Your task to perform on an android device: Open sound settings Image 0: 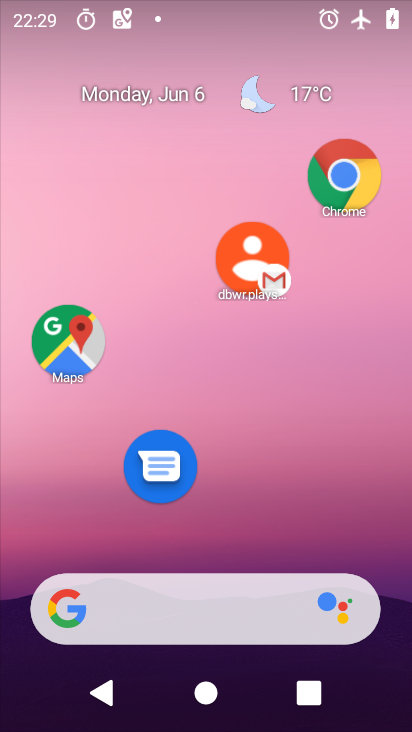
Step 0: drag from (218, 550) to (103, 111)
Your task to perform on an android device: Open sound settings Image 1: 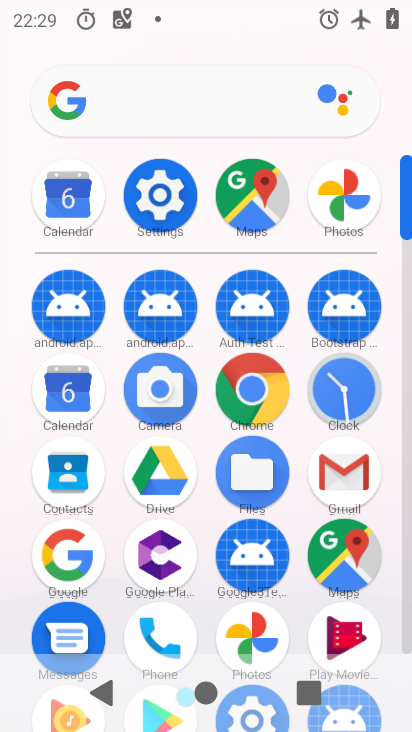
Step 1: click (170, 197)
Your task to perform on an android device: Open sound settings Image 2: 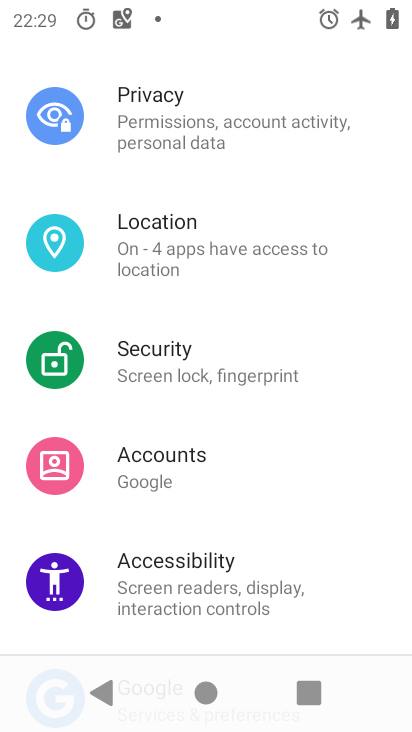
Step 2: drag from (162, 198) to (323, 638)
Your task to perform on an android device: Open sound settings Image 3: 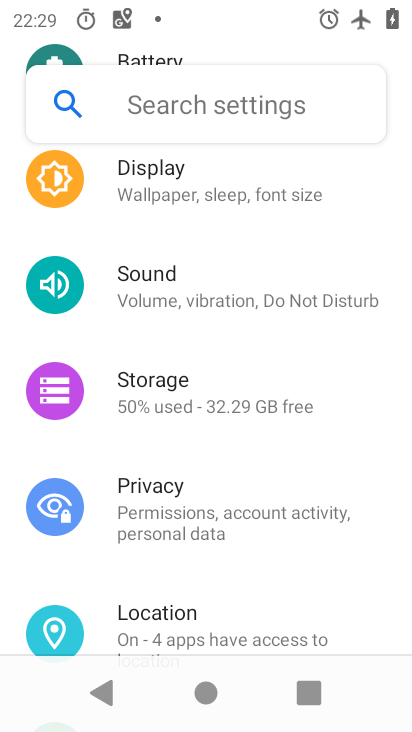
Step 3: click (143, 290)
Your task to perform on an android device: Open sound settings Image 4: 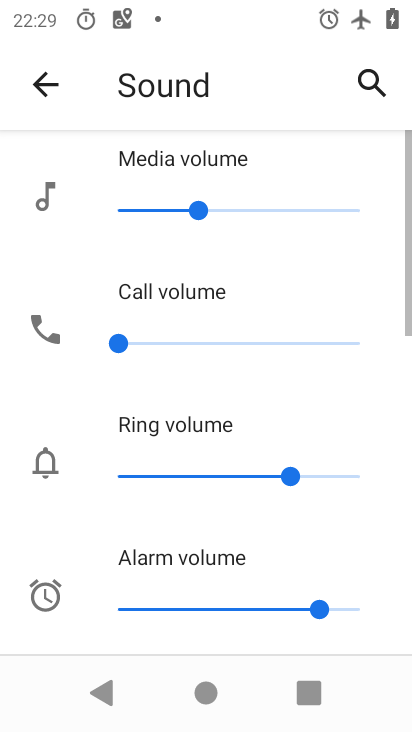
Step 4: task complete